Your task to perform on an android device: empty trash in google photos Image 0: 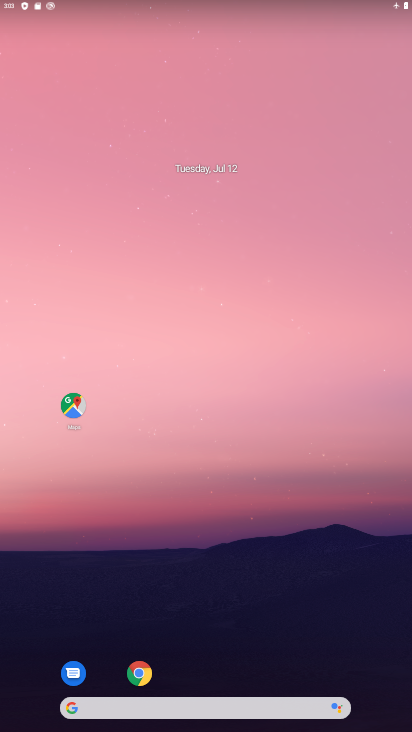
Step 0: drag from (218, 686) to (272, 49)
Your task to perform on an android device: empty trash in google photos Image 1: 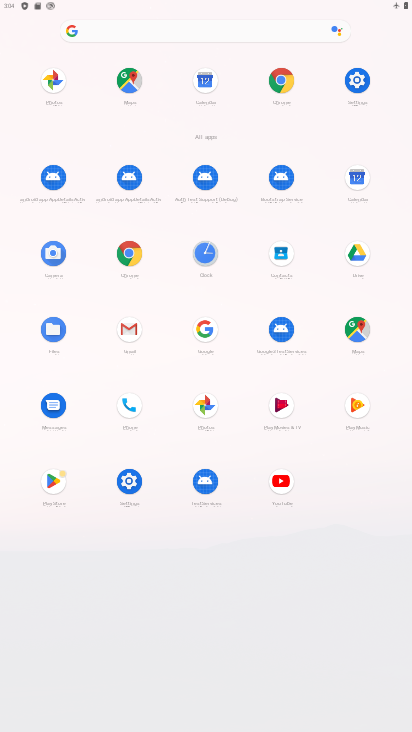
Step 1: click (207, 405)
Your task to perform on an android device: empty trash in google photos Image 2: 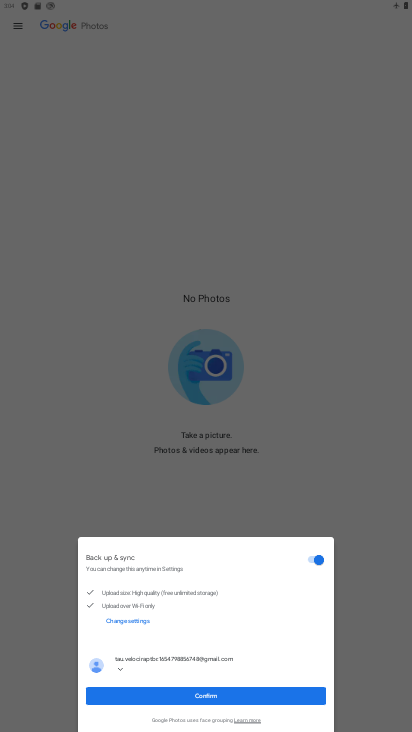
Step 2: click (189, 695)
Your task to perform on an android device: empty trash in google photos Image 3: 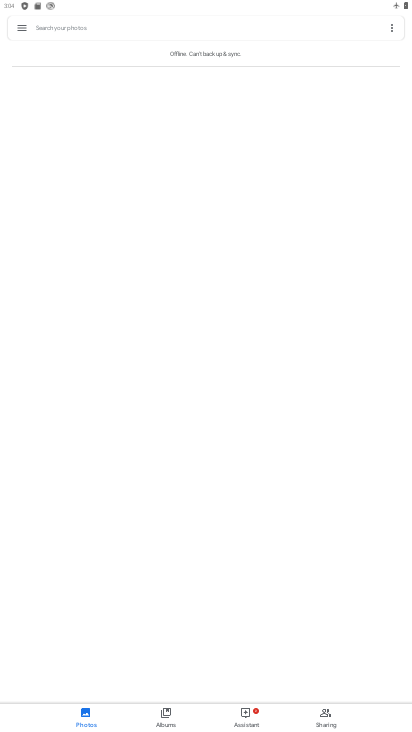
Step 3: click (20, 28)
Your task to perform on an android device: empty trash in google photos Image 4: 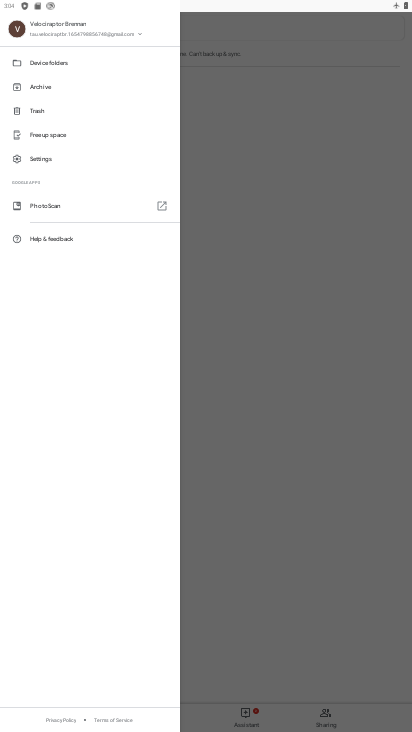
Step 4: click (34, 109)
Your task to perform on an android device: empty trash in google photos Image 5: 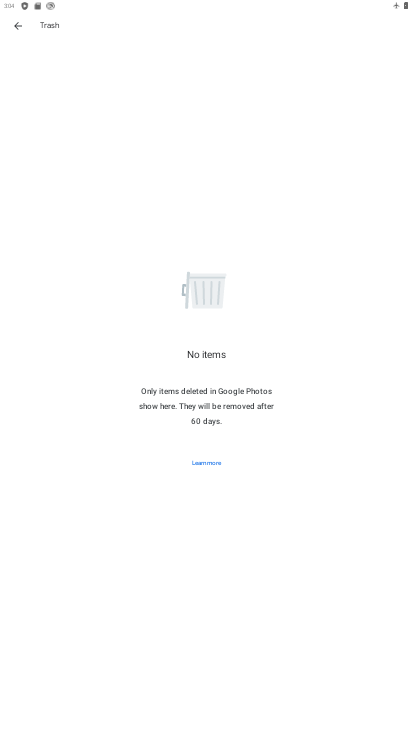
Step 5: task complete